Your task to perform on an android device: turn on wifi Image 0: 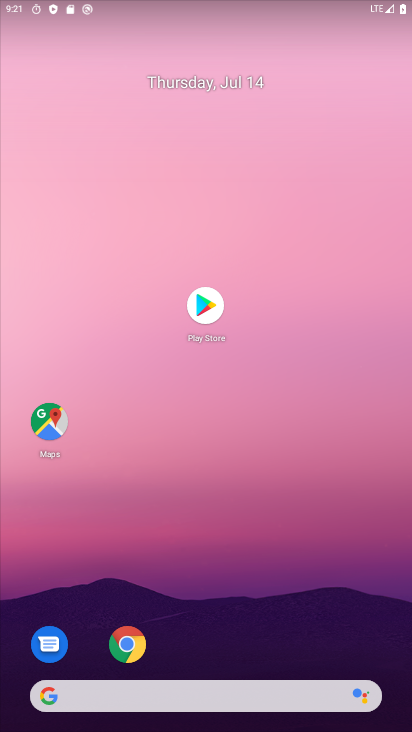
Step 0: drag from (275, 474) to (275, 171)
Your task to perform on an android device: turn on wifi Image 1: 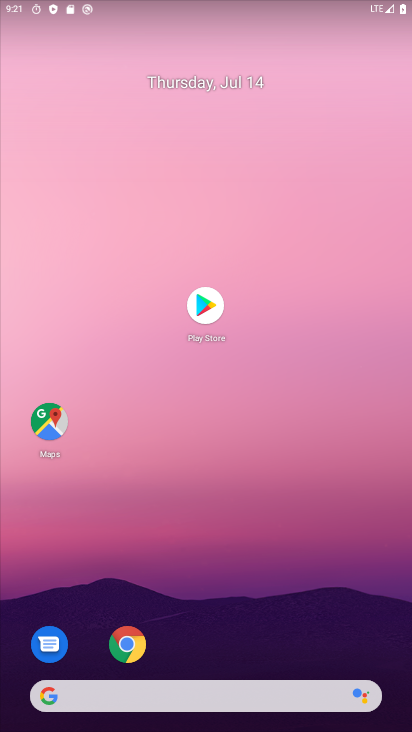
Step 1: drag from (189, 660) to (318, 76)
Your task to perform on an android device: turn on wifi Image 2: 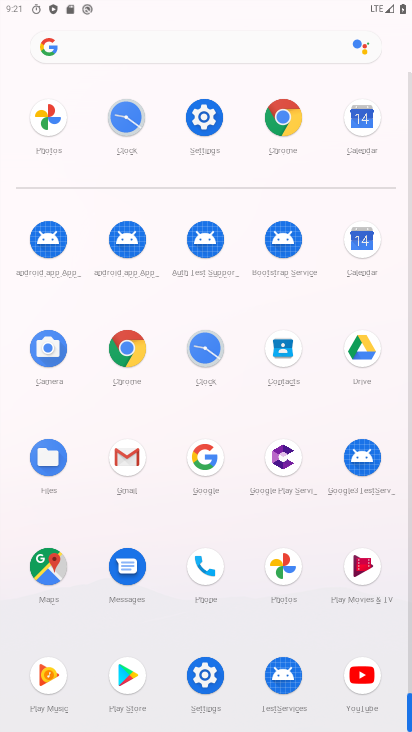
Step 2: drag from (245, 584) to (320, 135)
Your task to perform on an android device: turn on wifi Image 3: 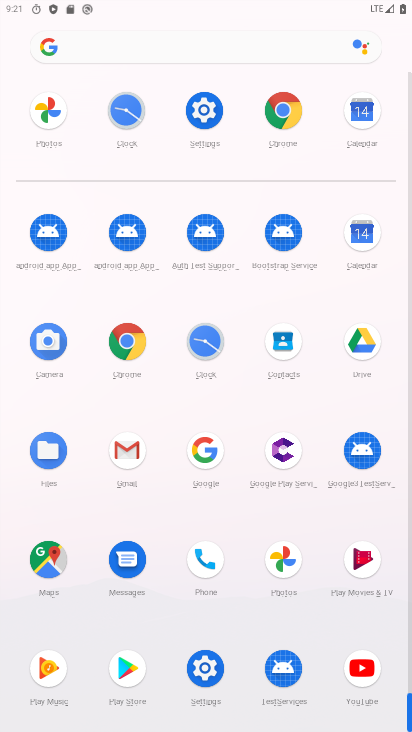
Step 3: click (202, 670)
Your task to perform on an android device: turn on wifi Image 4: 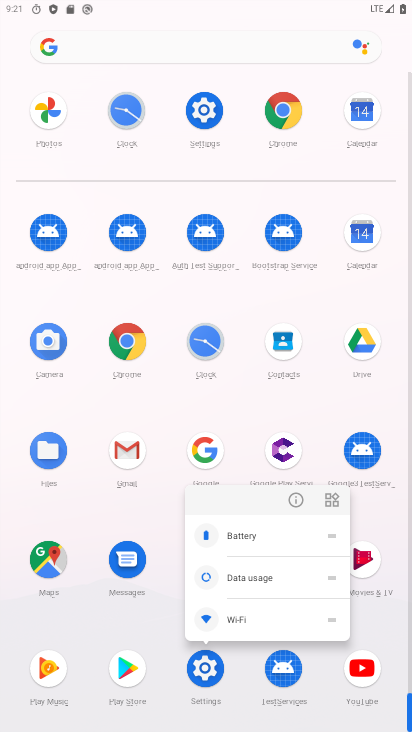
Step 4: click (297, 498)
Your task to perform on an android device: turn on wifi Image 5: 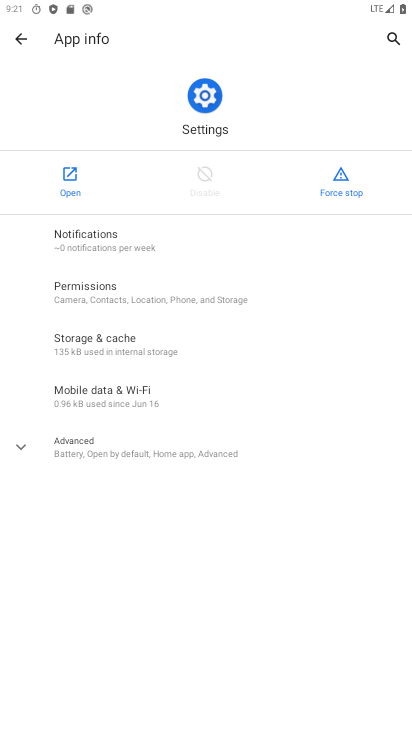
Step 5: drag from (244, 602) to (290, 224)
Your task to perform on an android device: turn on wifi Image 6: 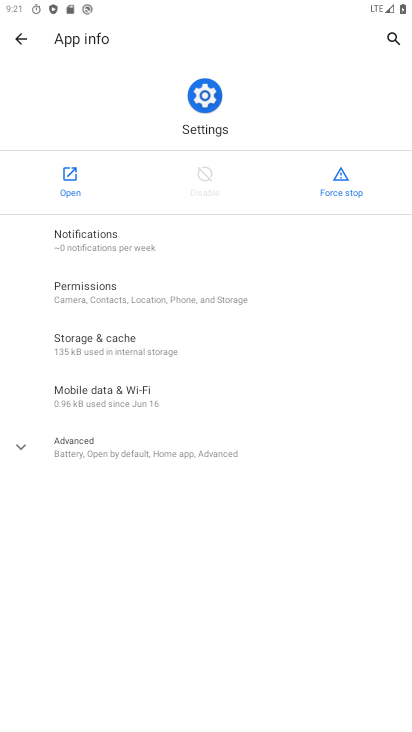
Step 6: click (71, 184)
Your task to perform on an android device: turn on wifi Image 7: 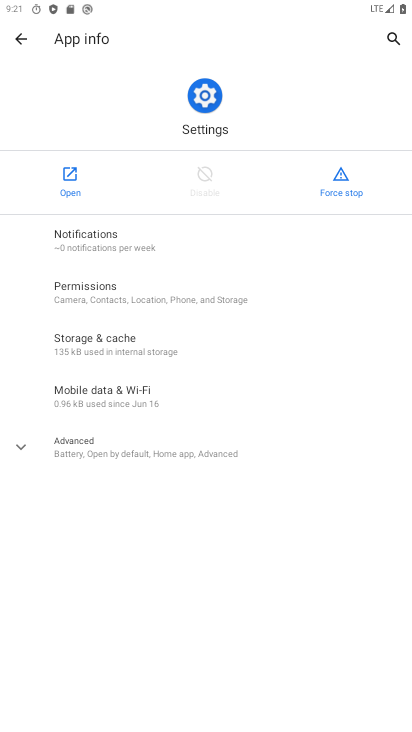
Step 7: click (71, 184)
Your task to perform on an android device: turn on wifi Image 8: 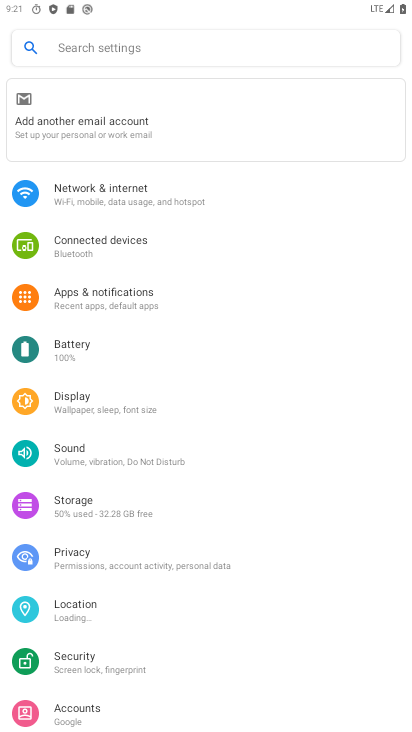
Step 8: drag from (195, 476) to (196, 346)
Your task to perform on an android device: turn on wifi Image 9: 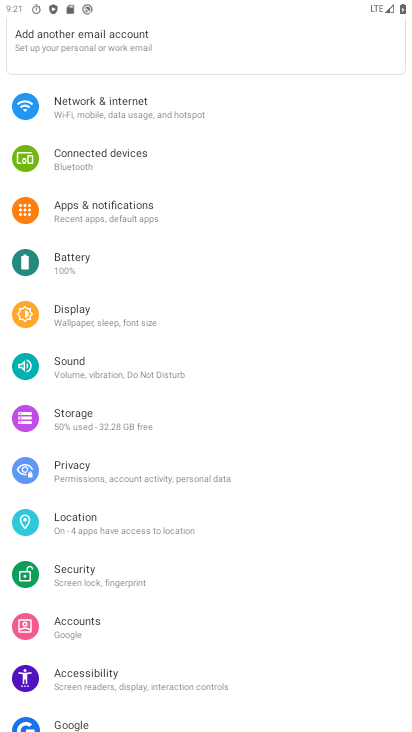
Step 9: drag from (207, 543) to (252, 116)
Your task to perform on an android device: turn on wifi Image 10: 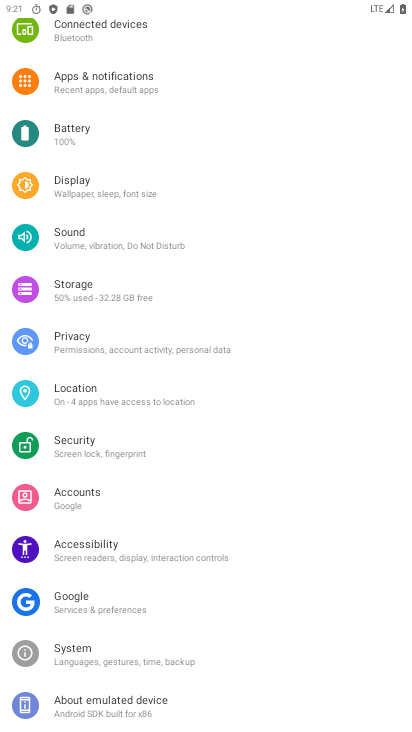
Step 10: drag from (203, 111) to (181, 516)
Your task to perform on an android device: turn on wifi Image 11: 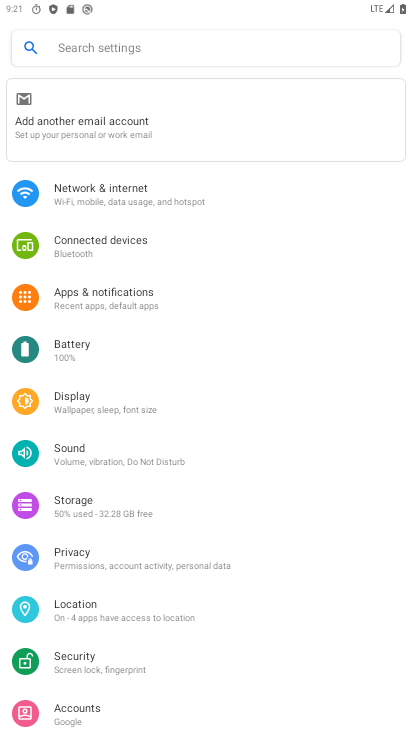
Step 11: click (151, 209)
Your task to perform on an android device: turn on wifi Image 12: 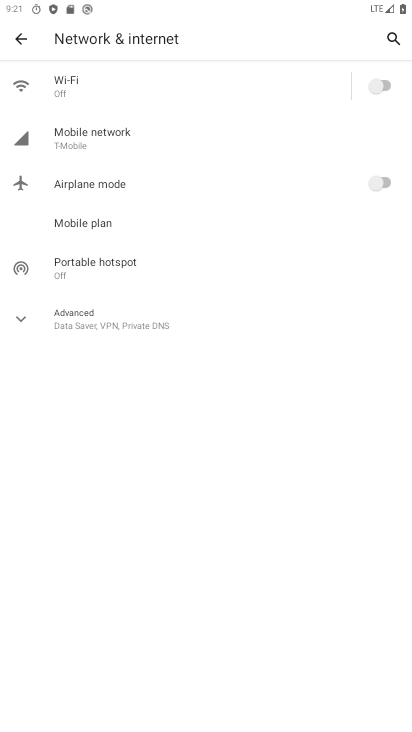
Step 12: drag from (191, 106) to (219, 336)
Your task to perform on an android device: turn on wifi Image 13: 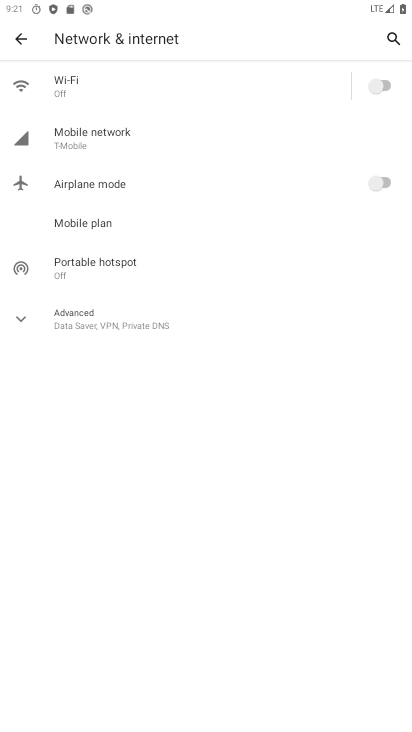
Step 13: drag from (205, 93) to (217, 383)
Your task to perform on an android device: turn on wifi Image 14: 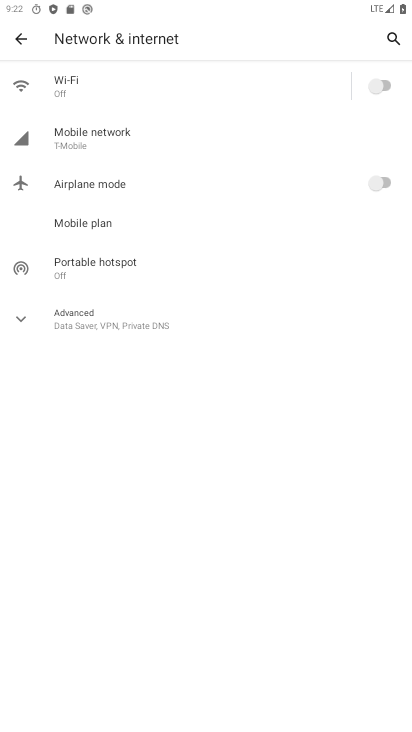
Step 14: drag from (182, 529) to (182, 328)
Your task to perform on an android device: turn on wifi Image 15: 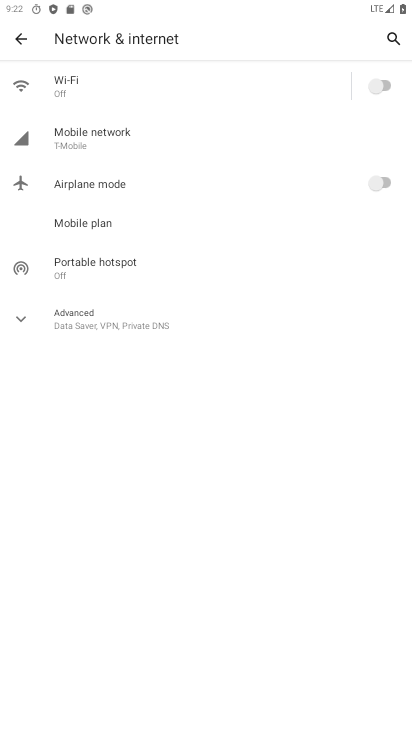
Step 15: drag from (201, 504) to (216, 215)
Your task to perform on an android device: turn on wifi Image 16: 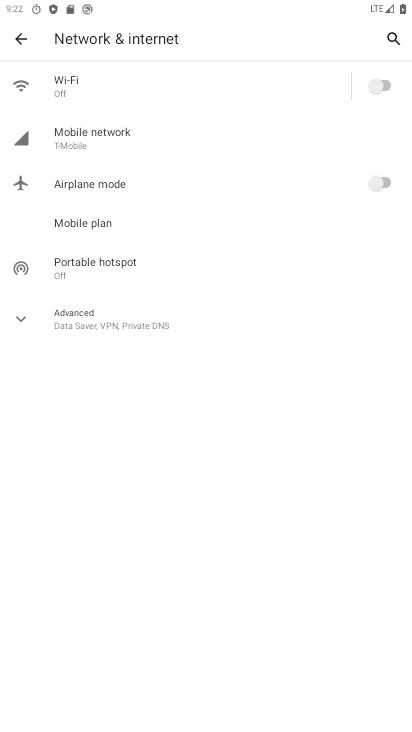
Step 16: click (383, 95)
Your task to perform on an android device: turn on wifi Image 17: 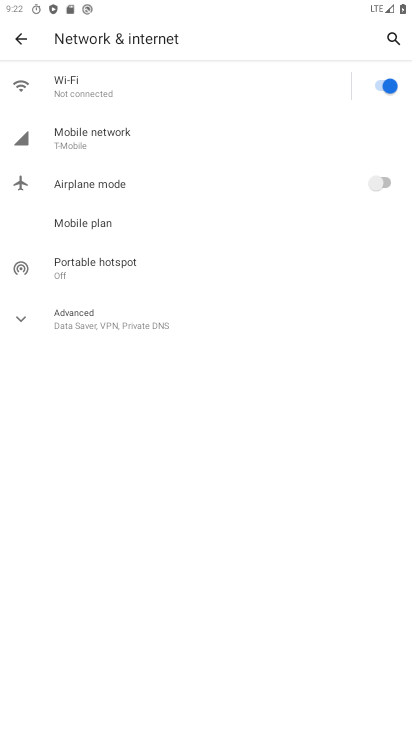
Step 17: task complete